Your task to perform on an android device: toggle notification dots Image 0: 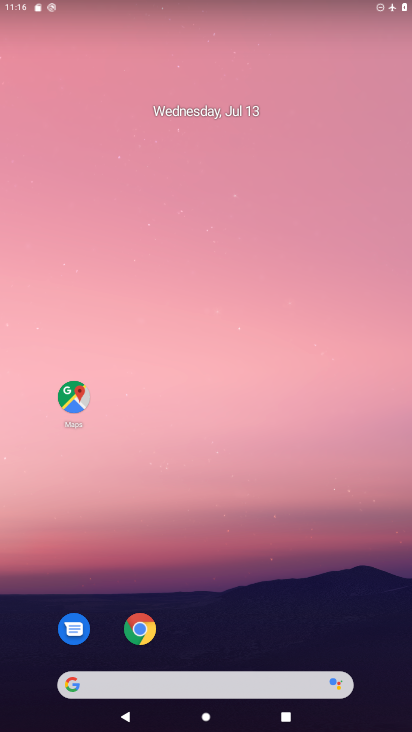
Step 0: drag from (394, 712) to (285, 133)
Your task to perform on an android device: toggle notification dots Image 1: 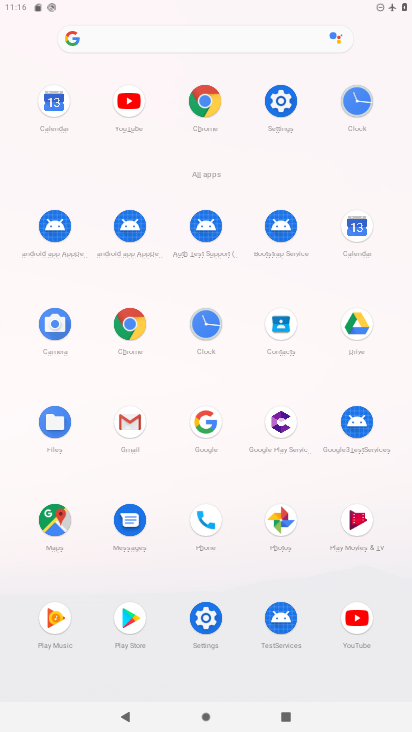
Step 1: click (285, 96)
Your task to perform on an android device: toggle notification dots Image 2: 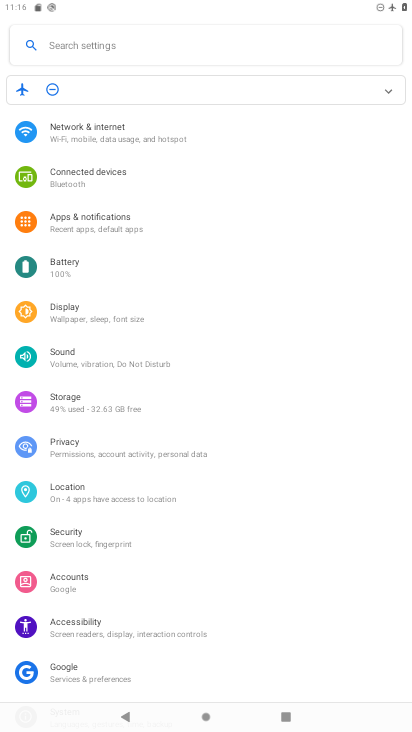
Step 2: click (123, 217)
Your task to perform on an android device: toggle notification dots Image 3: 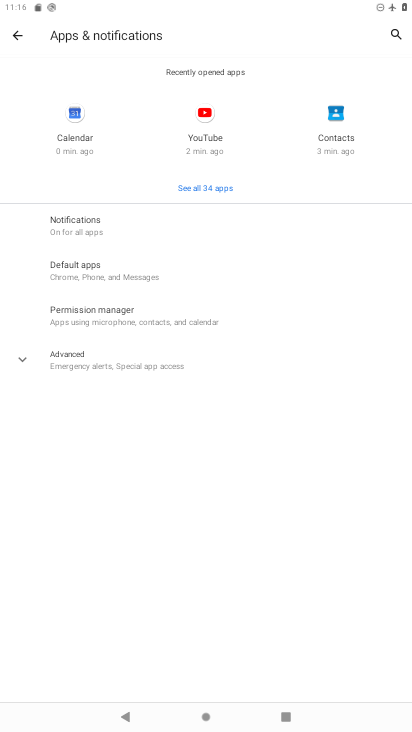
Step 3: click (90, 221)
Your task to perform on an android device: toggle notification dots Image 4: 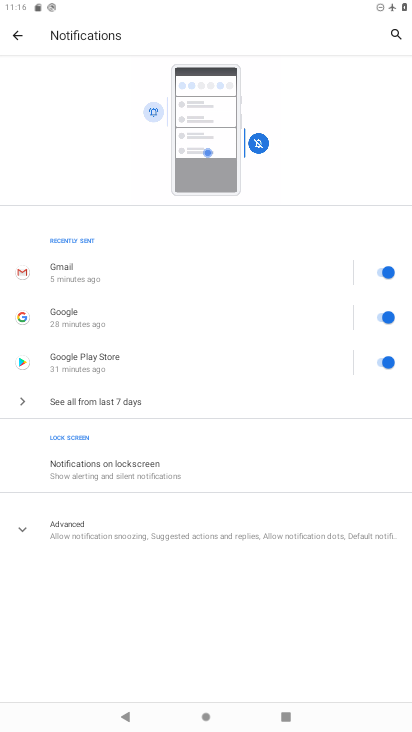
Step 4: click (41, 527)
Your task to perform on an android device: toggle notification dots Image 5: 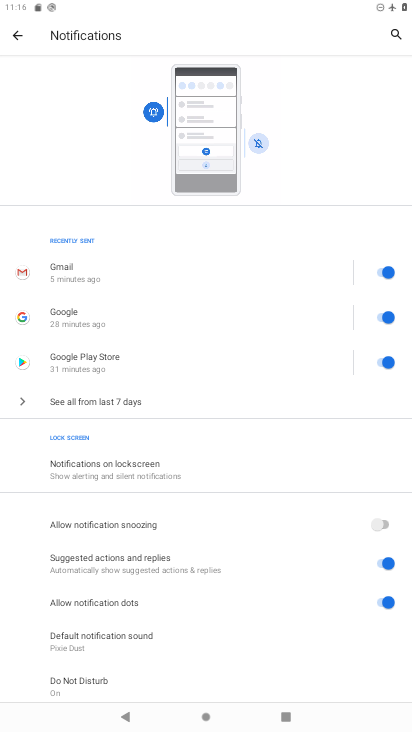
Step 5: click (380, 600)
Your task to perform on an android device: toggle notification dots Image 6: 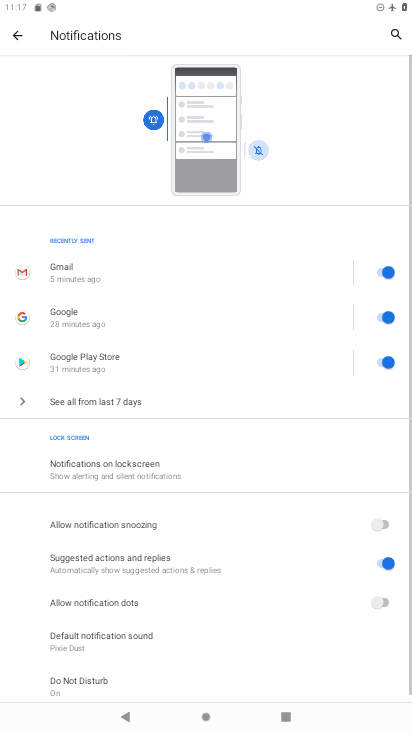
Step 6: task complete